Your task to perform on an android device: Go to ESPN.com Image 0: 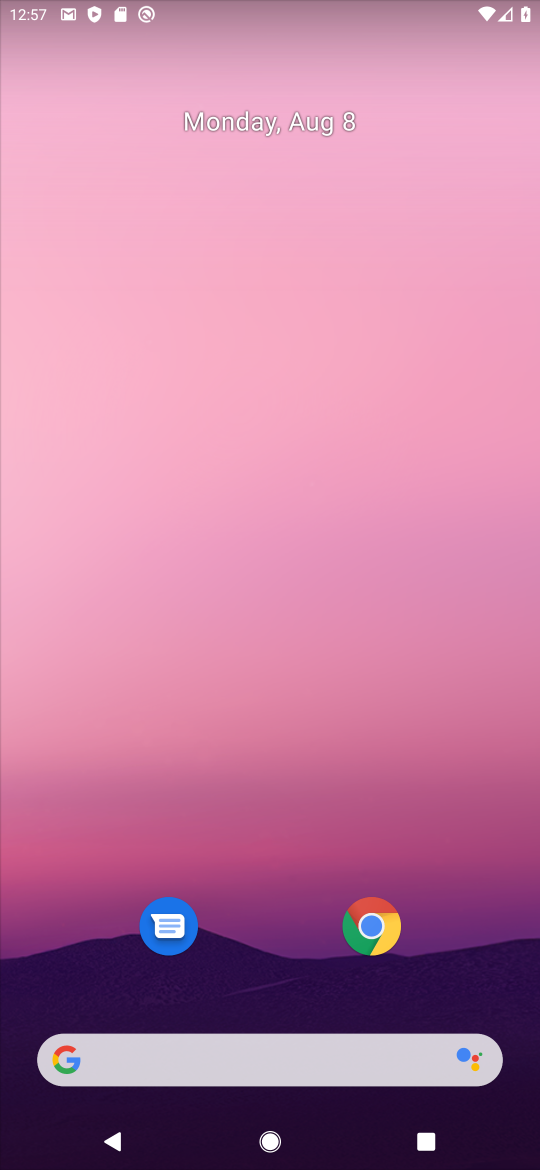
Step 0: drag from (352, 181) to (381, 36)
Your task to perform on an android device: Go to ESPN.com Image 1: 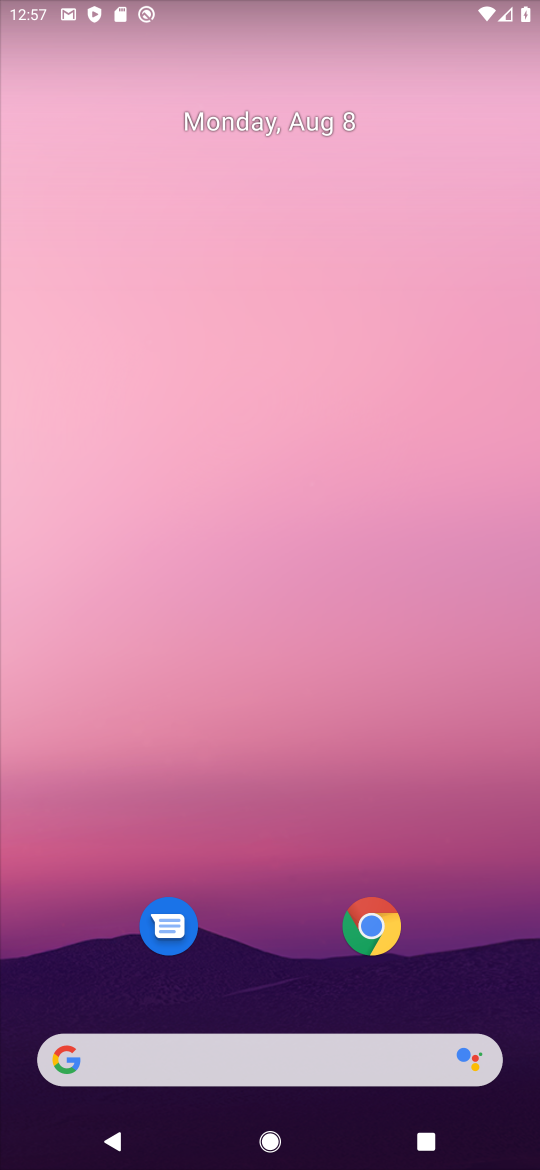
Step 1: drag from (276, 889) to (352, 45)
Your task to perform on an android device: Go to ESPN.com Image 2: 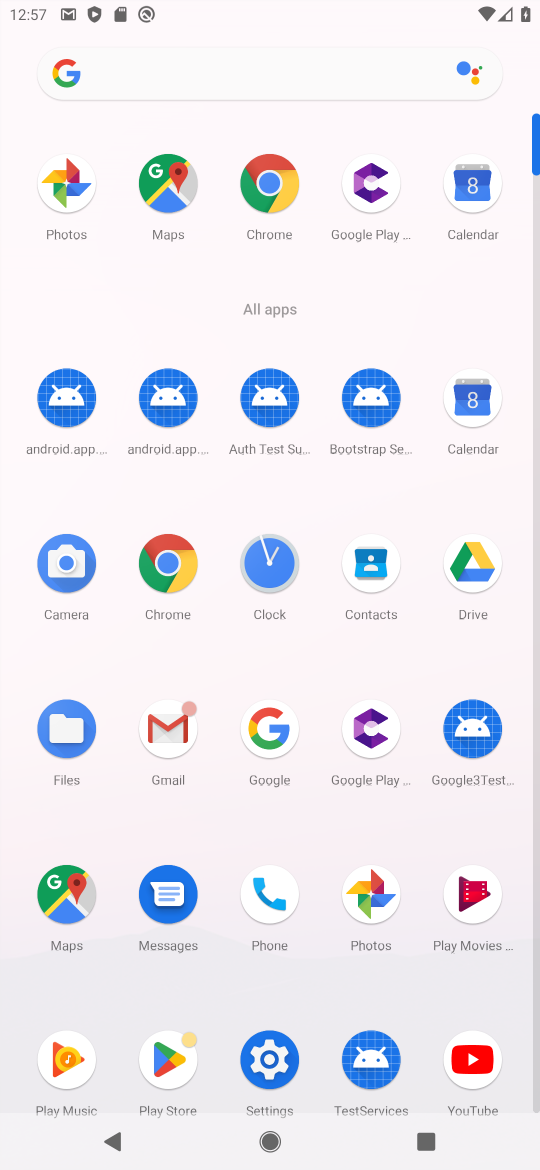
Step 2: click (276, 202)
Your task to perform on an android device: Go to ESPN.com Image 3: 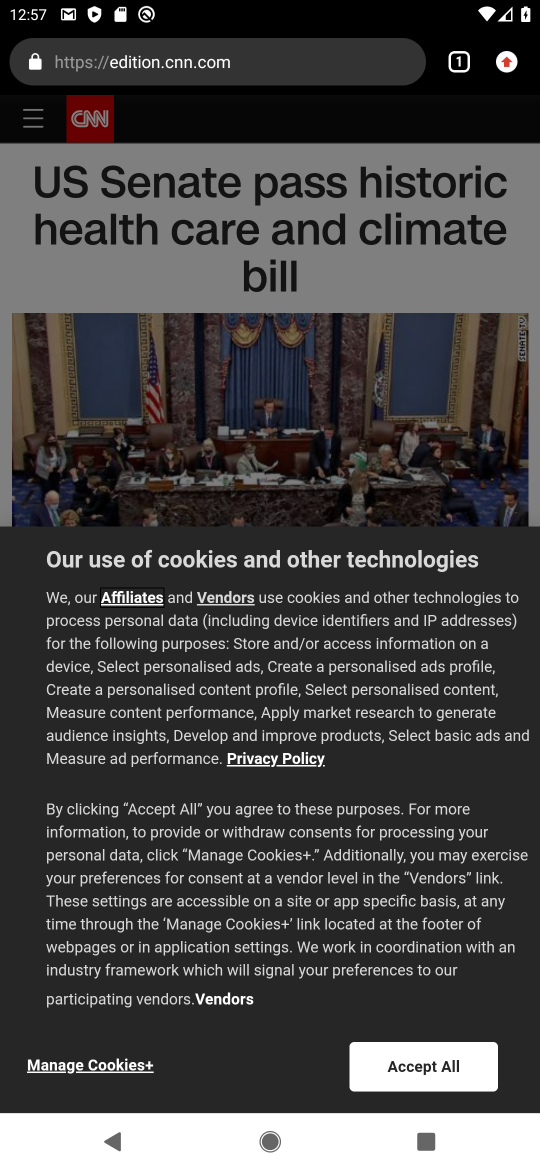
Step 3: click (504, 66)
Your task to perform on an android device: Go to ESPN.com Image 4: 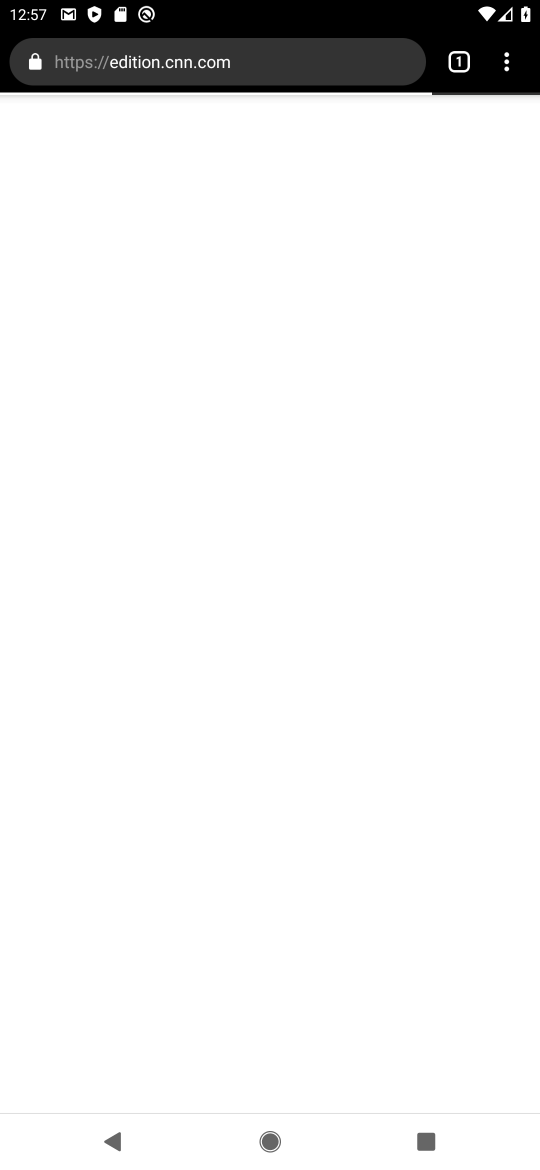
Step 4: click (514, 65)
Your task to perform on an android device: Go to ESPN.com Image 5: 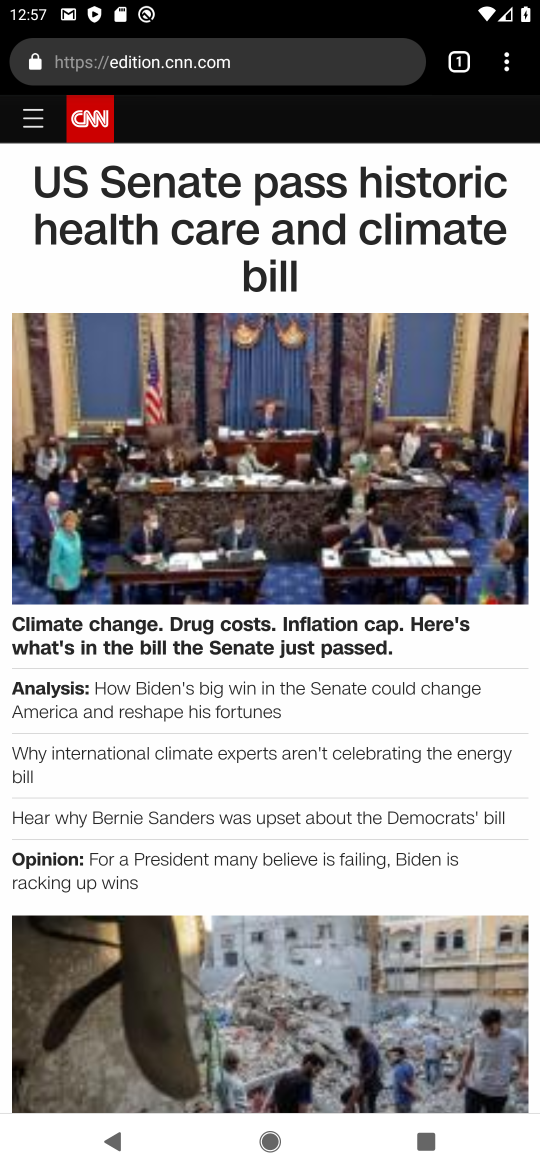
Step 5: click (502, 65)
Your task to perform on an android device: Go to ESPN.com Image 6: 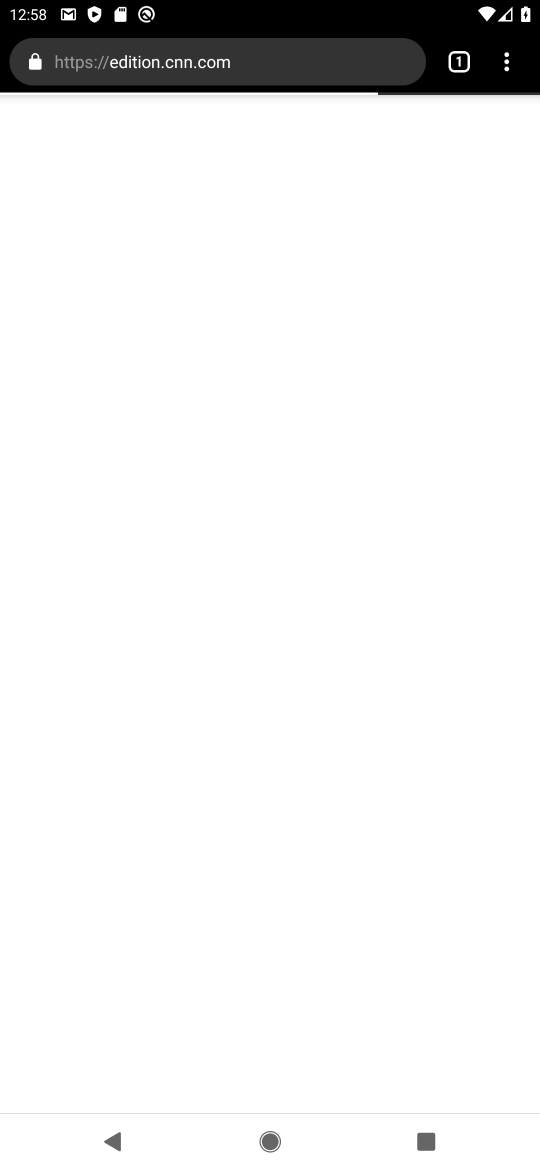
Step 6: click (517, 66)
Your task to perform on an android device: Go to ESPN.com Image 7: 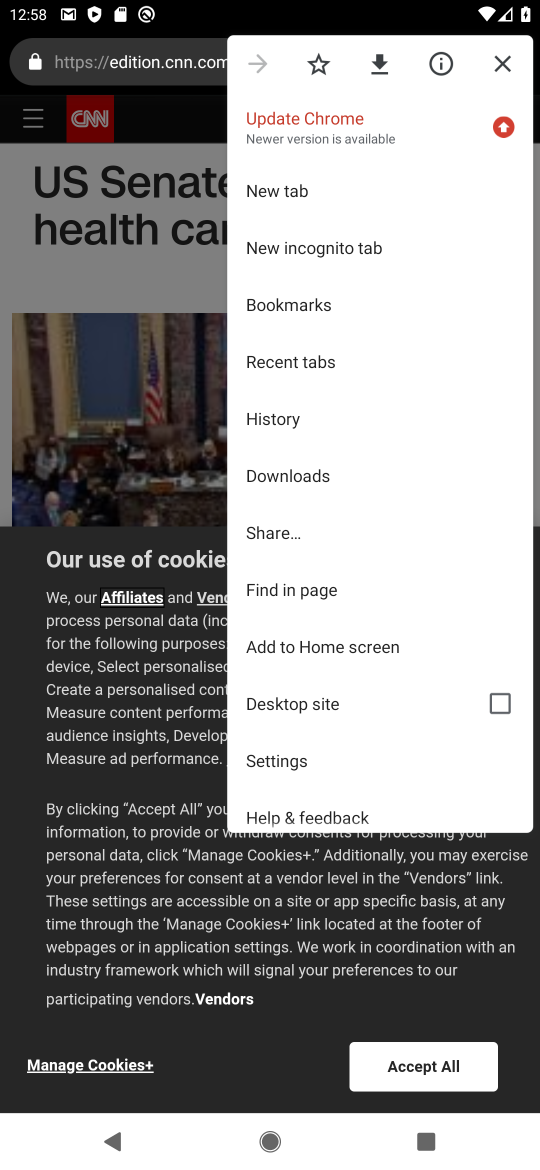
Step 7: click (320, 179)
Your task to perform on an android device: Go to ESPN.com Image 8: 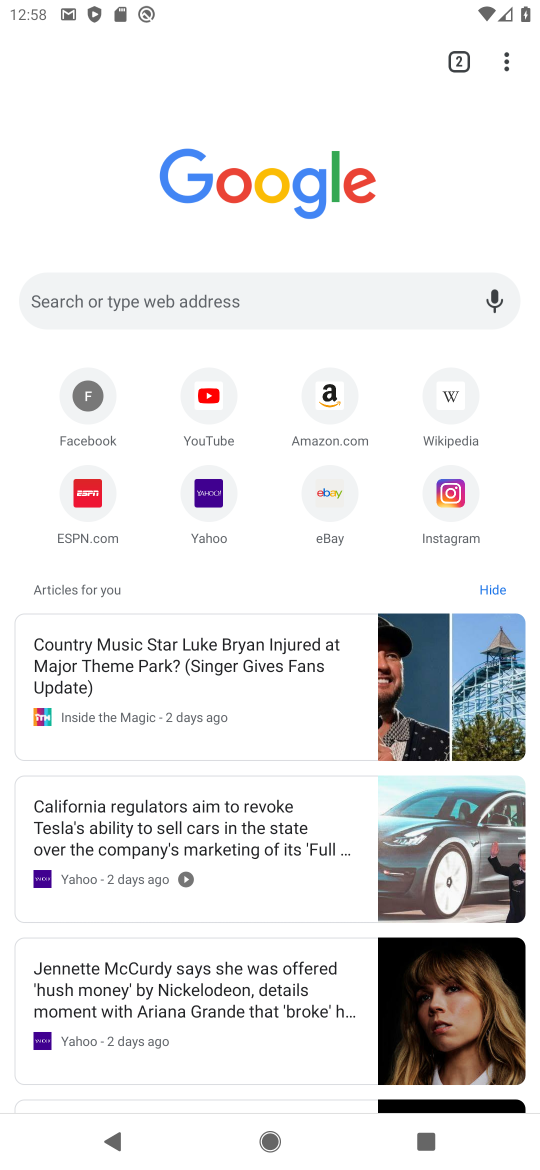
Step 8: click (75, 494)
Your task to perform on an android device: Go to ESPN.com Image 9: 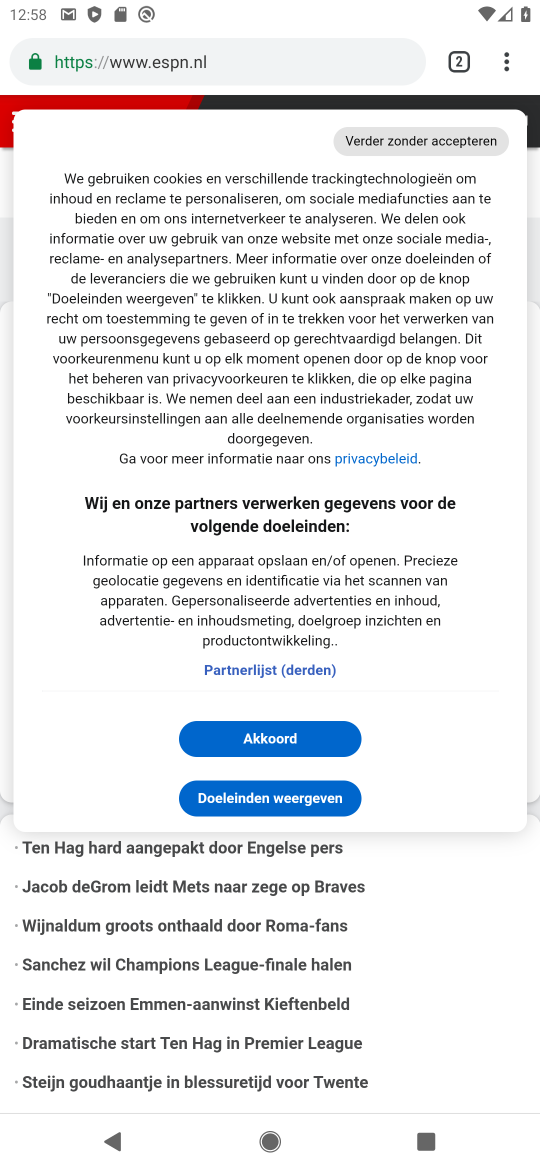
Step 9: task complete